Your task to perform on an android device: Show me recent news Image 0: 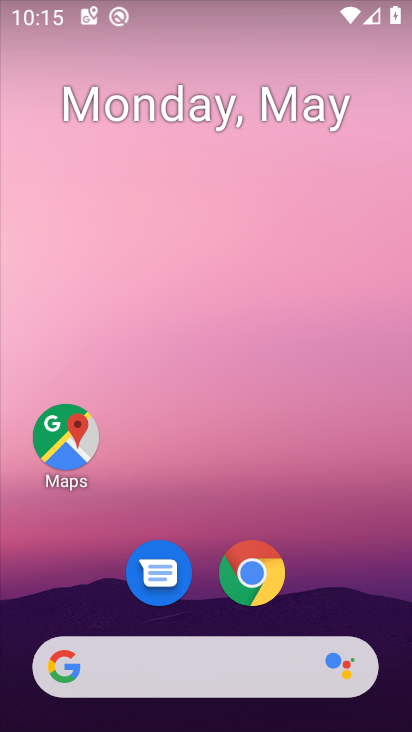
Step 0: click (213, 670)
Your task to perform on an android device: Show me recent news Image 1: 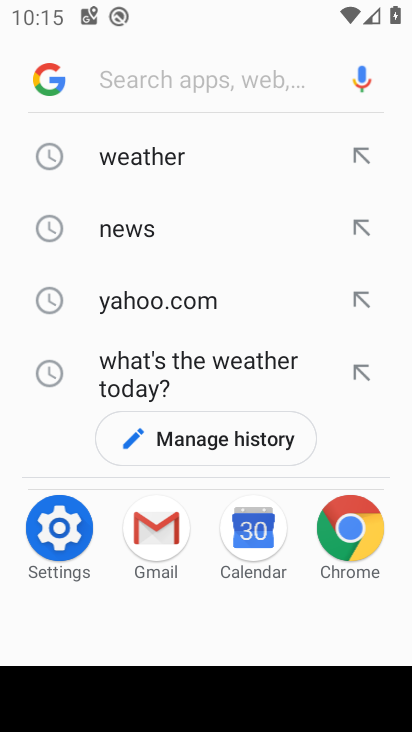
Step 1: type "recent news"
Your task to perform on an android device: Show me recent news Image 2: 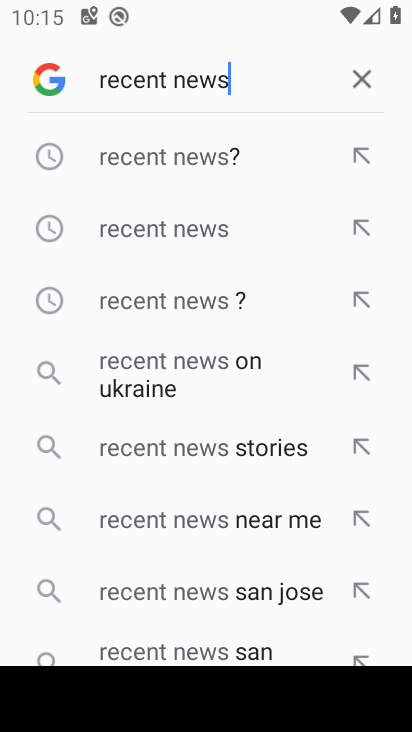
Step 2: click (221, 163)
Your task to perform on an android device: Show me recent news Image 3: 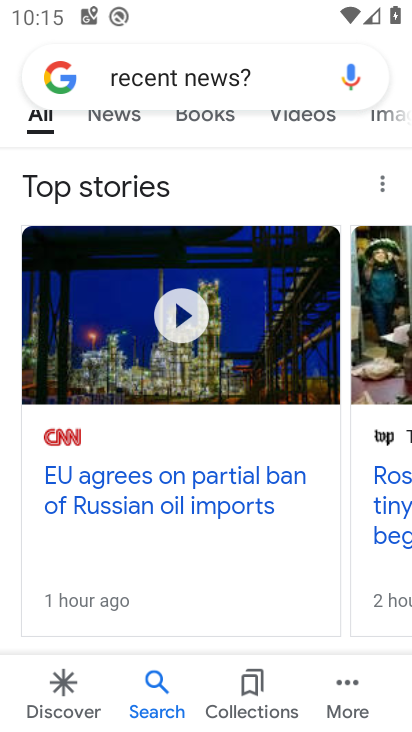
Step 3: task complete